Your task to perform on an android device: turn off translation in the chrome app Image 0: 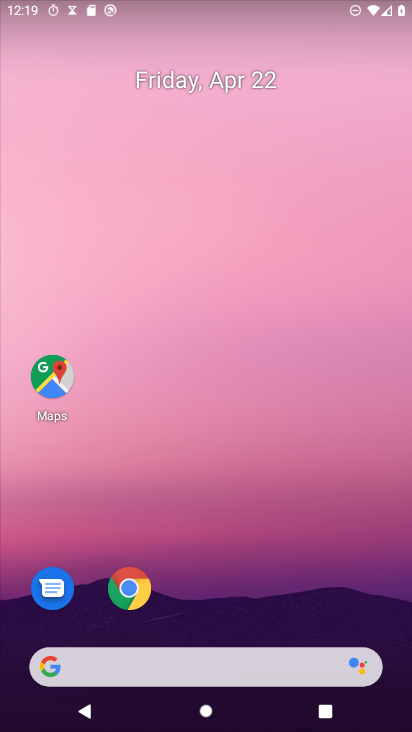
Step 0: click (135, 597)
Your task to perform on an android device: turn off translation in the chrome app Image 1: 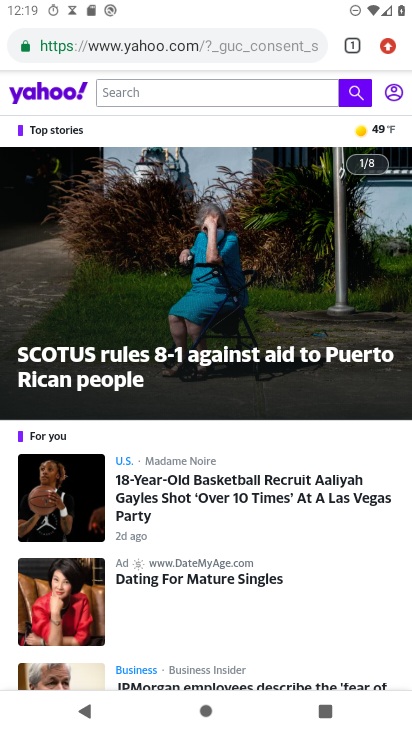
Step 1: click (396, 43)
Your task to perform on an android device: turn off translation in the chrome app Image 2: 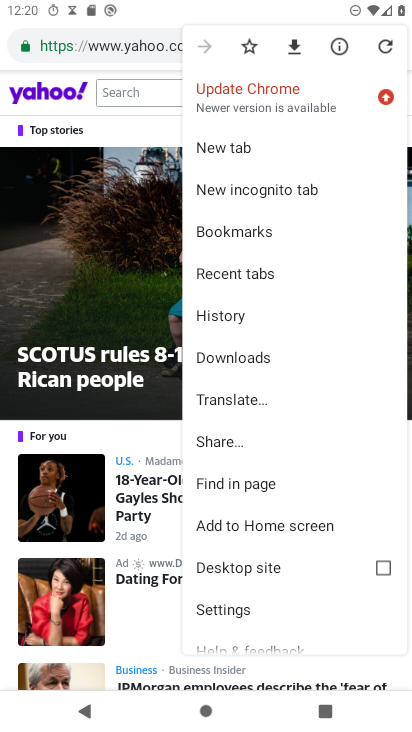
Step 2: click (234, 601)
Your task to perform on an android device: turn off translation in the chrome app Image 3: 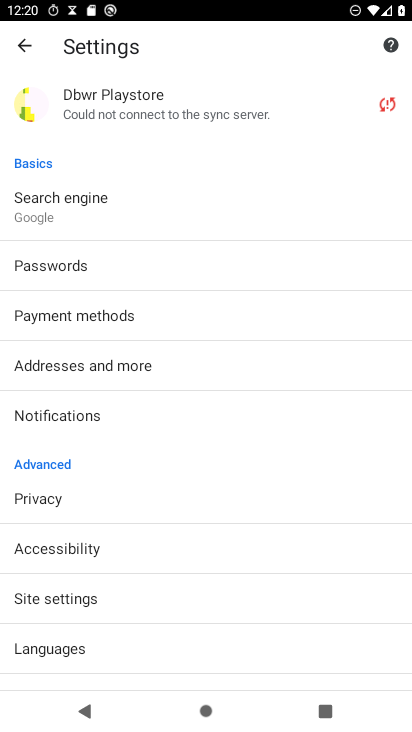
Step 3: click (66, 642)
Your task to perform on an android device: turn off translation in the chrome app Image 4: 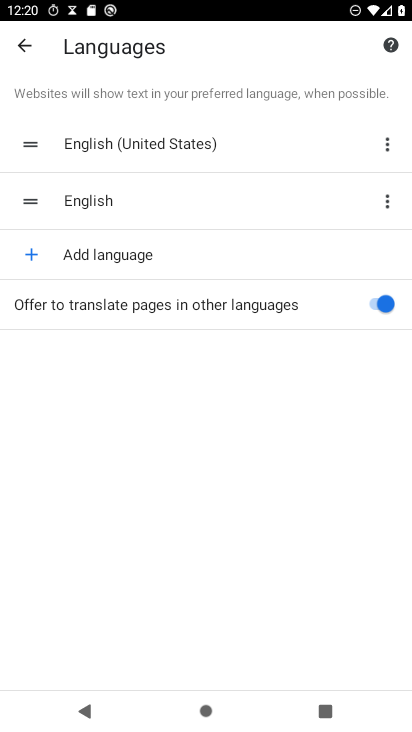
Step 4: click (381, 306)
Your task to perform on an android device: turn off translation in the chrome app Image 5: 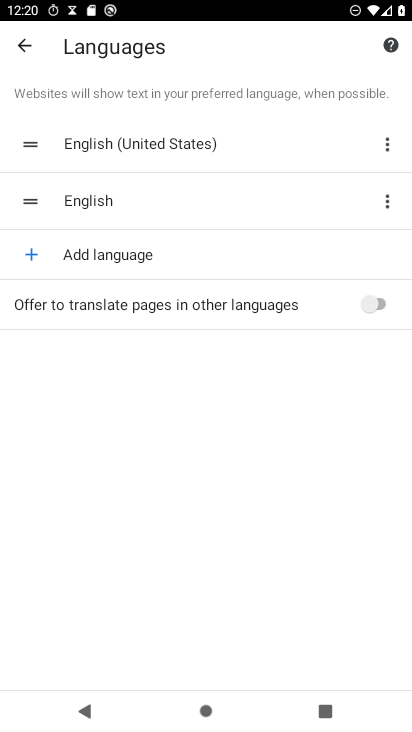
Step 5: task complete